Your task to perform on an android device: find snoozed emails in the gmail app Image 0: 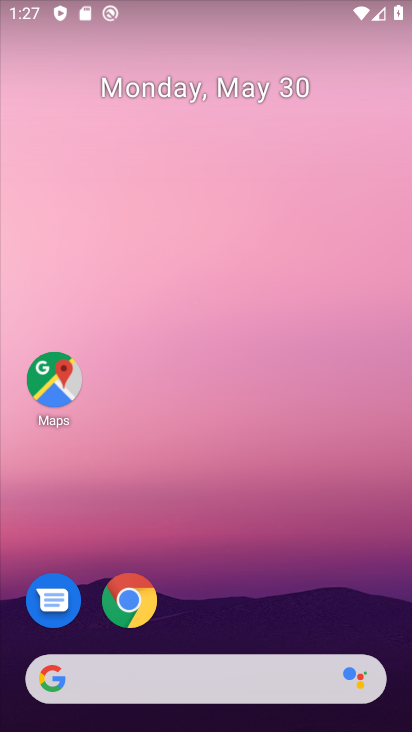
Step 0: drag from (204, 642) to (204, 43)
Your task to perform on an android device: find snoozed emails in the gmail app Image 1: 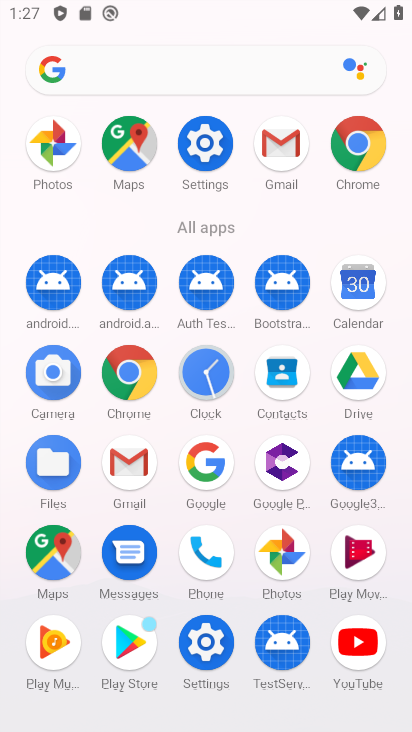
Step 1: click (118, 468)
Your task to perform on an android device: find snoozed emails in the gmail app Image 2: 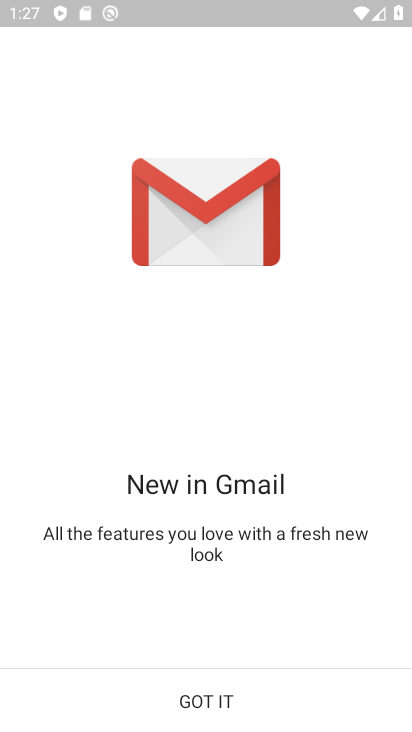
Step 2: click (211, 688)
Your task to perform on an android device: find snoozed emails in the gmail app Image 3: 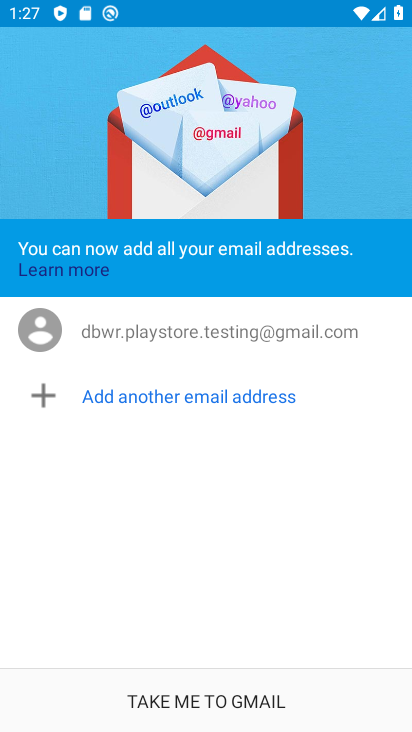
Step 3: click (211, 688)
Your task to perform on an android device: find snoozed emails in the gmail app Image 4: 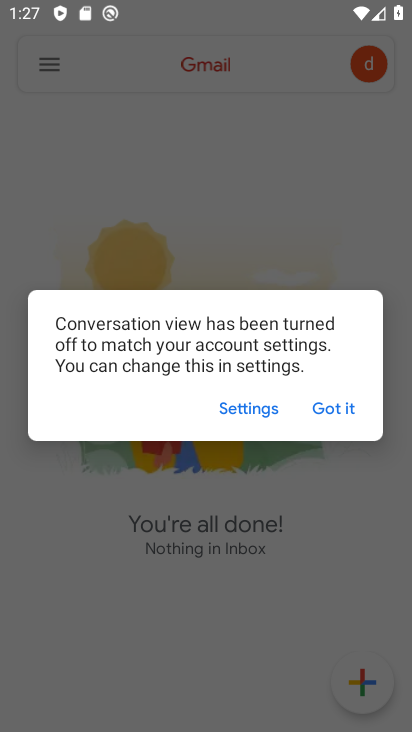
Step 4: click (332, 414)
Your task to perform on an android device: find snoozed emails in the gmail app Image 5: 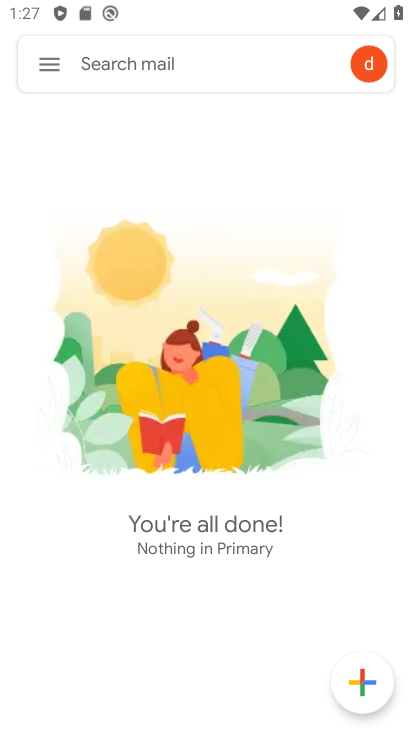
Step 5: click (49, 67)
Your task to perform on an android device: find snoozed emails in the gmail app Image 6: 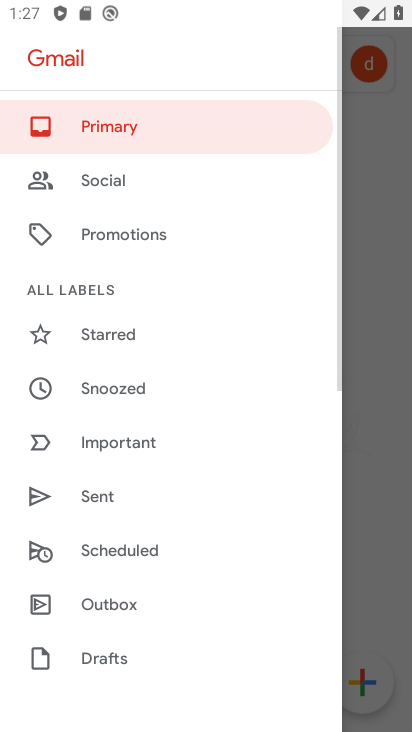
Step 6: click (137, 381)
Your task to perform on an android device: find snoozed emails in the gmail app Image 7: 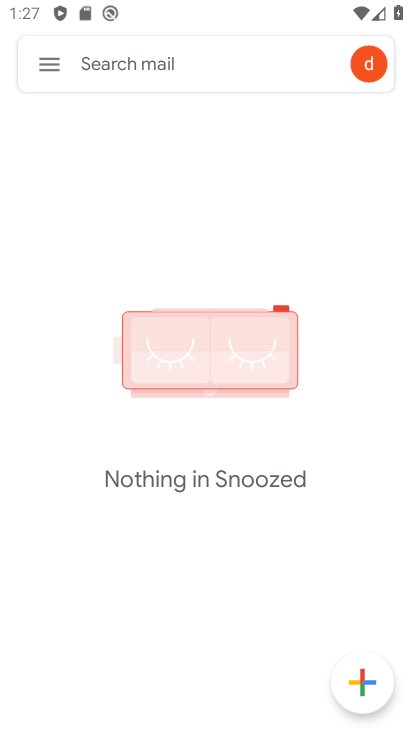
Step 7: task complete